Your task to perform on an android device: toggle notification dots Image 0: 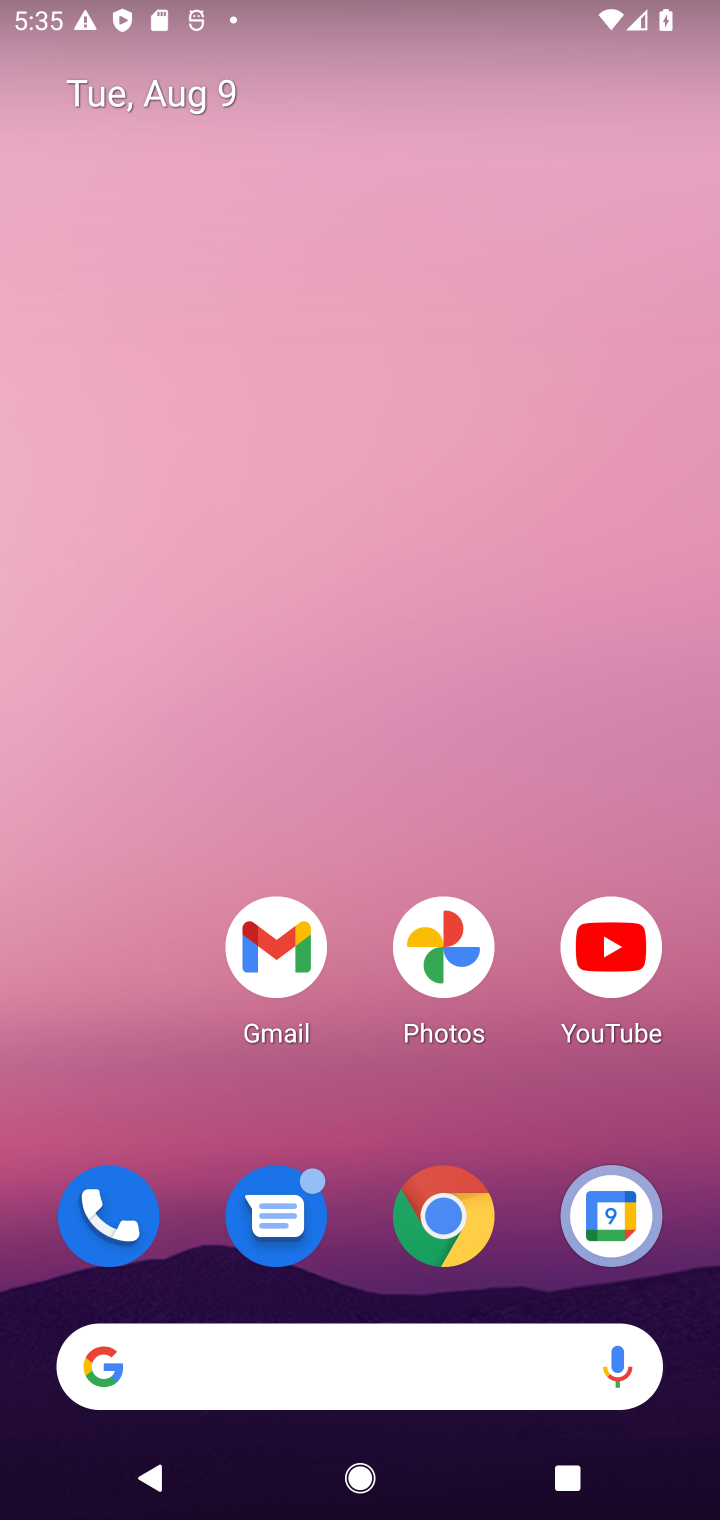
Step 0: press home button
Your task to perform on an android device: toggle notification dots Image 1: 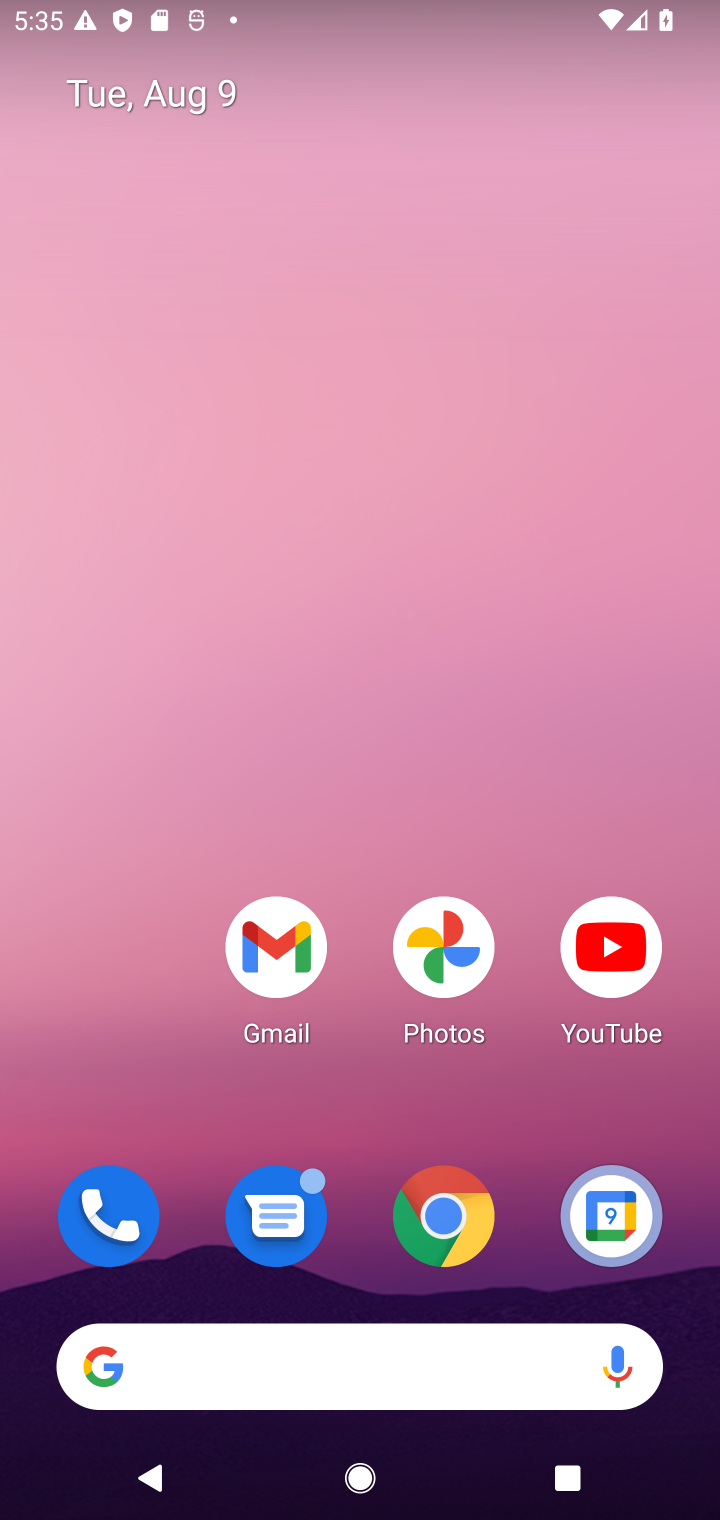
Step 1: drag from (343, 8) to (400, 939)
Your task to perform on an android device: toggle notification dots Image 2: 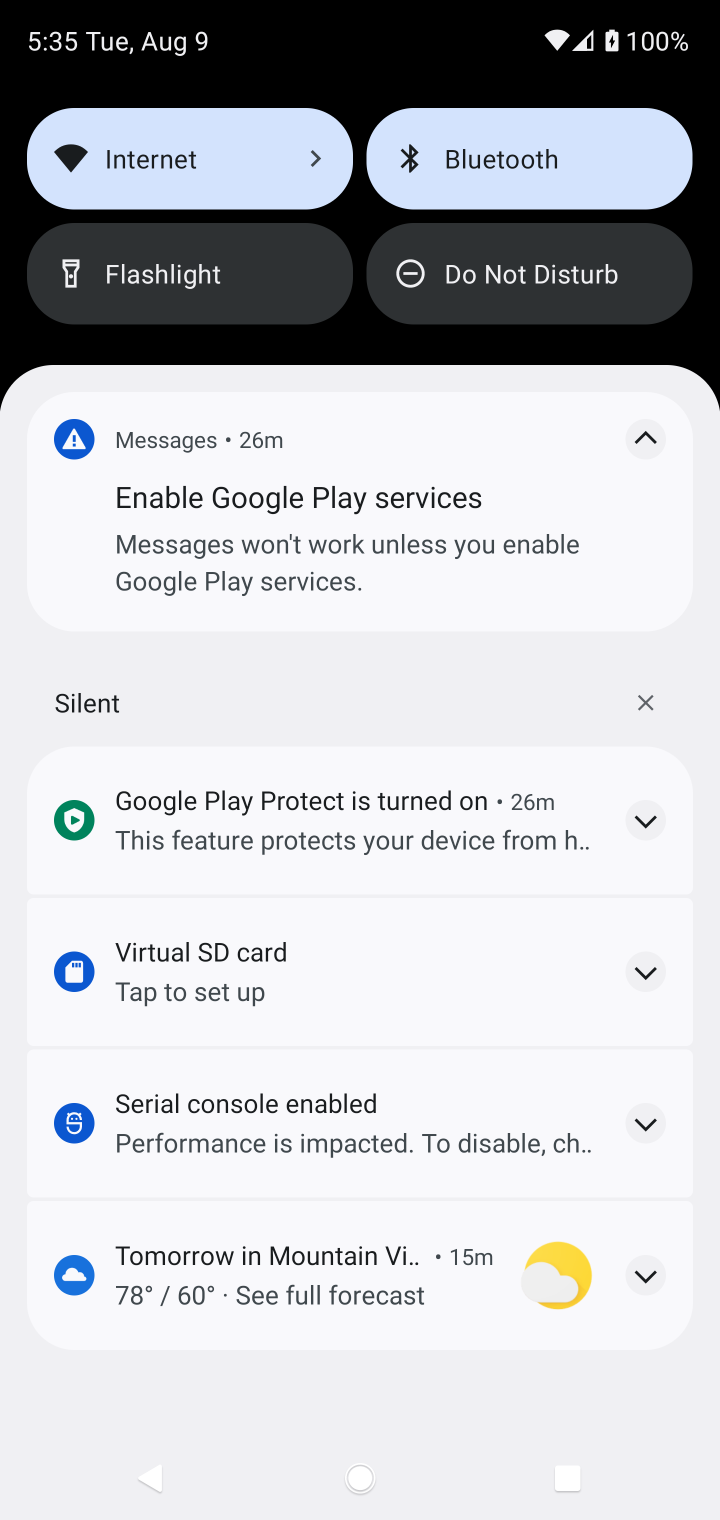
Step 2: drag from (276, 1442) to (276, 556)
Your task to perform on an android device: toggle notification dots Image 3: 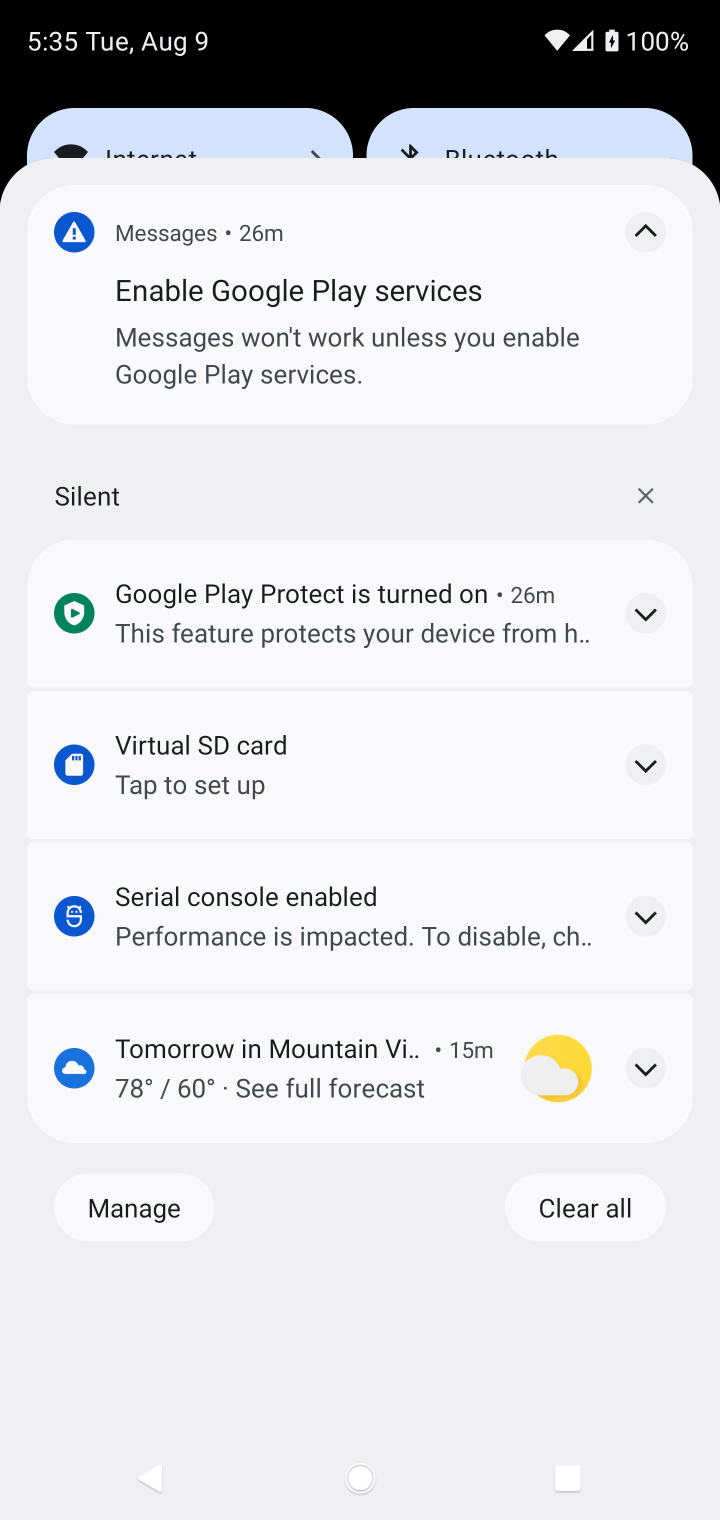
Step 3: drag from (234, 1257) to (157, 455)
Your task to perform on an android device: toggle notification dots Image 4: 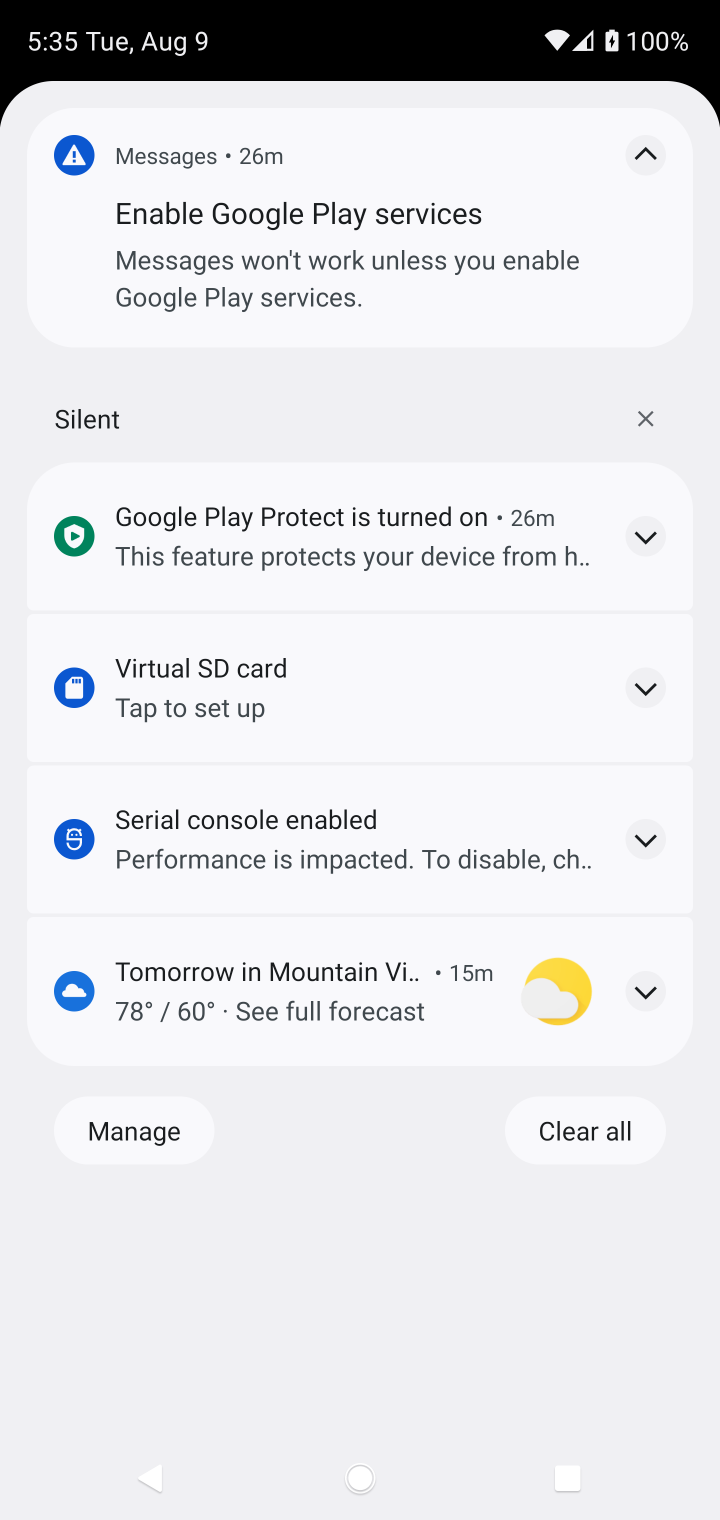
Step 4: drag from (138, 1174) to (3, 191)
Your task to perform on an android device: toggle notification dots Image 5: 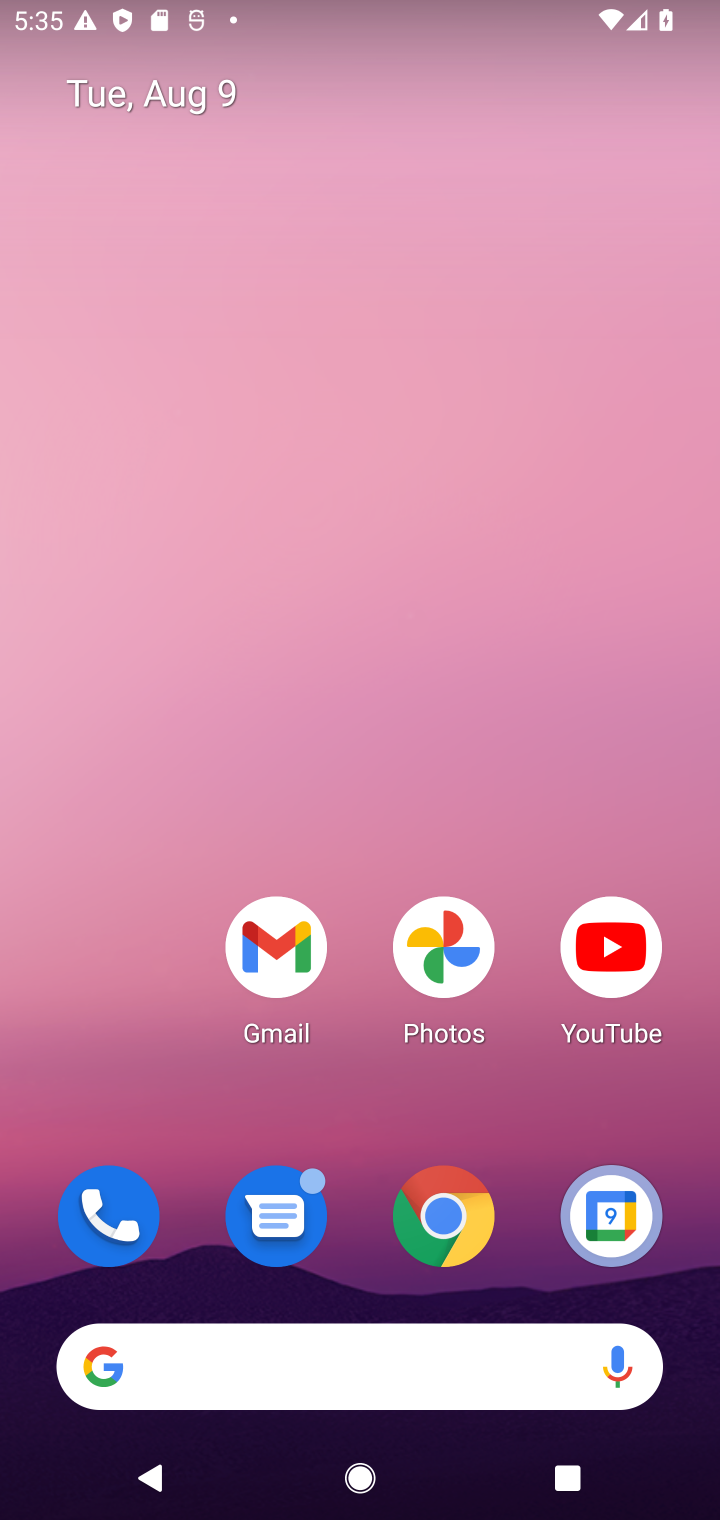
Step 5: drag from (391, 1264) to (290, 442)
Your task to perform on an android device: toggle notification dots Image 6: 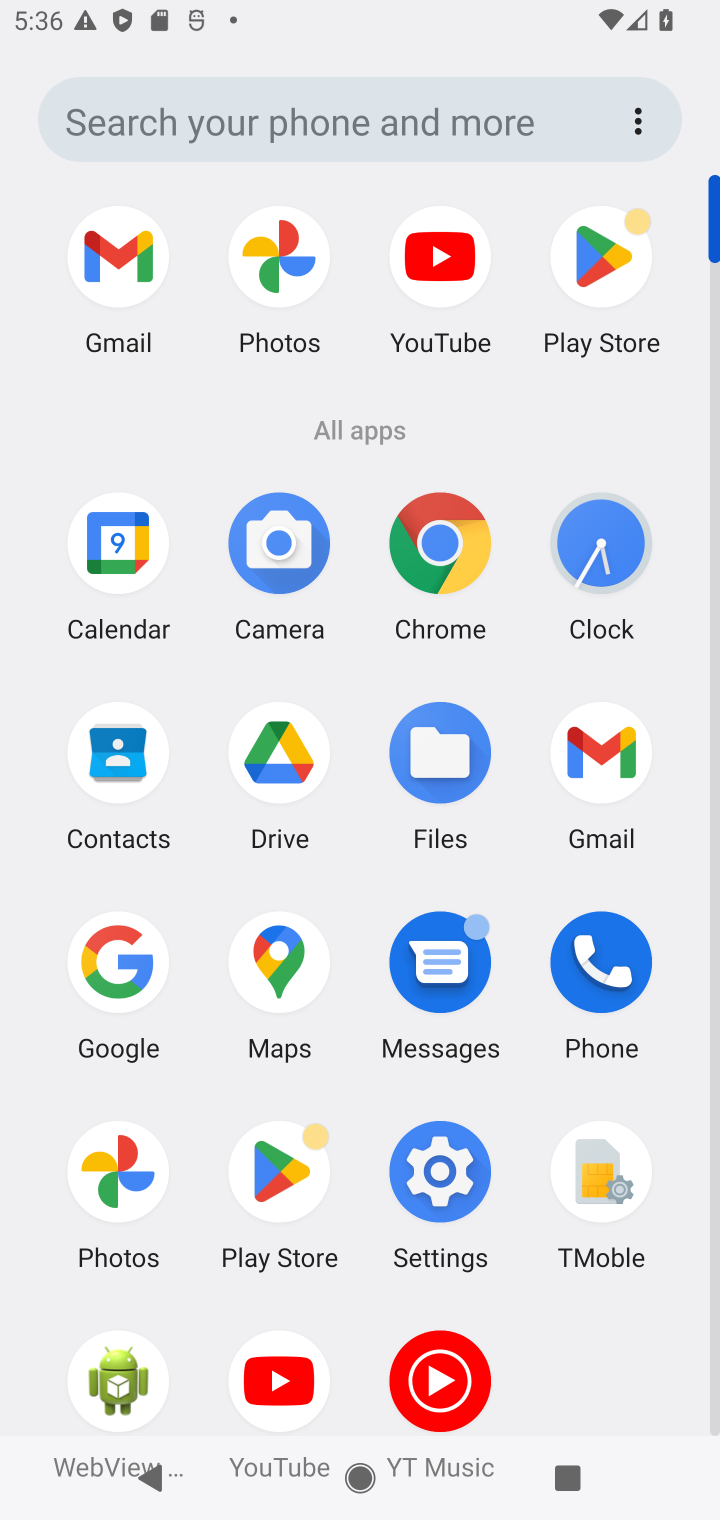
Step 6: click (425, 1181)
Your task to perform on an android device: toggle notification dots Image 7: 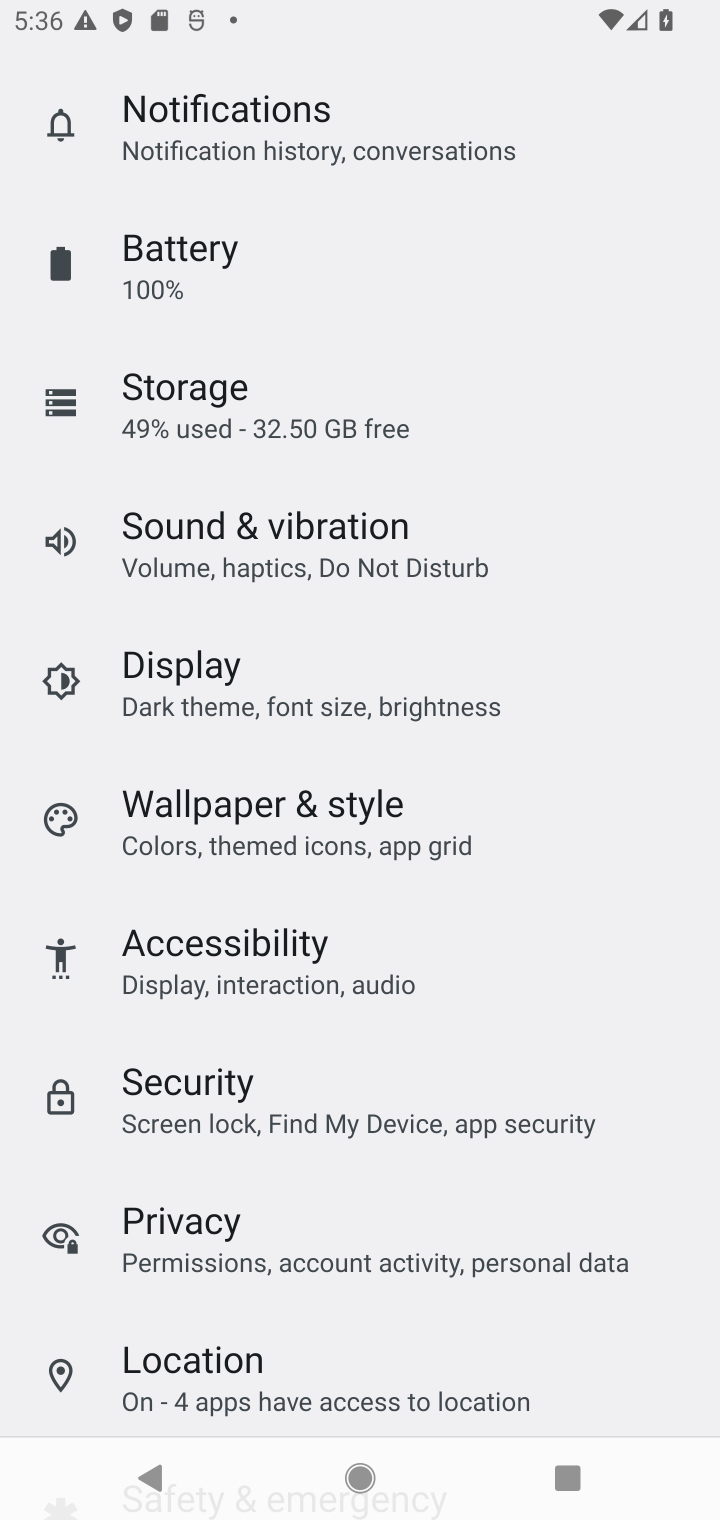
Step 7: drag from (194, 1376) to (144, 491)
Your task to perform on an android device: toggle notification dots Image 8: 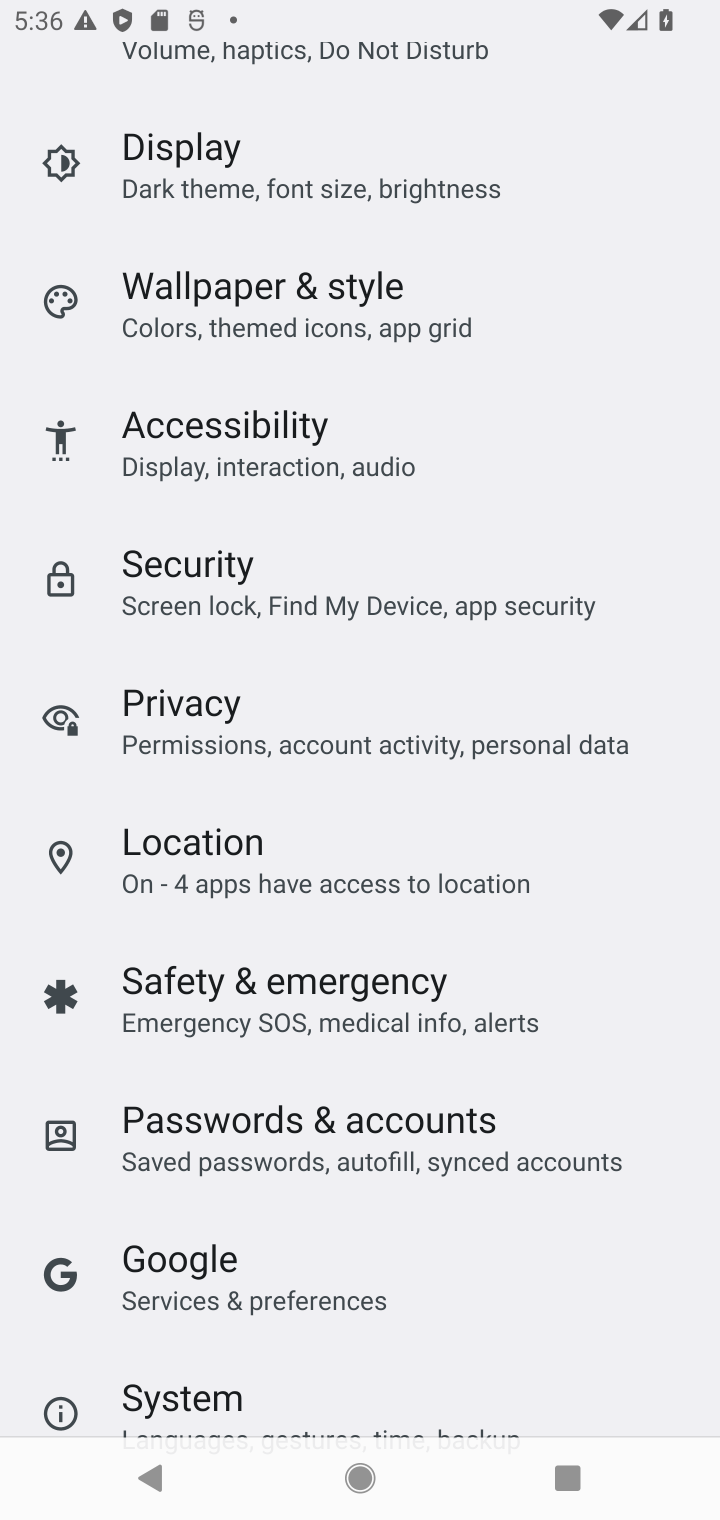
Step 8: drag from (227, 117) to (356, 1010)
Your task to perform on an android device: toggle notification dots Image 9: 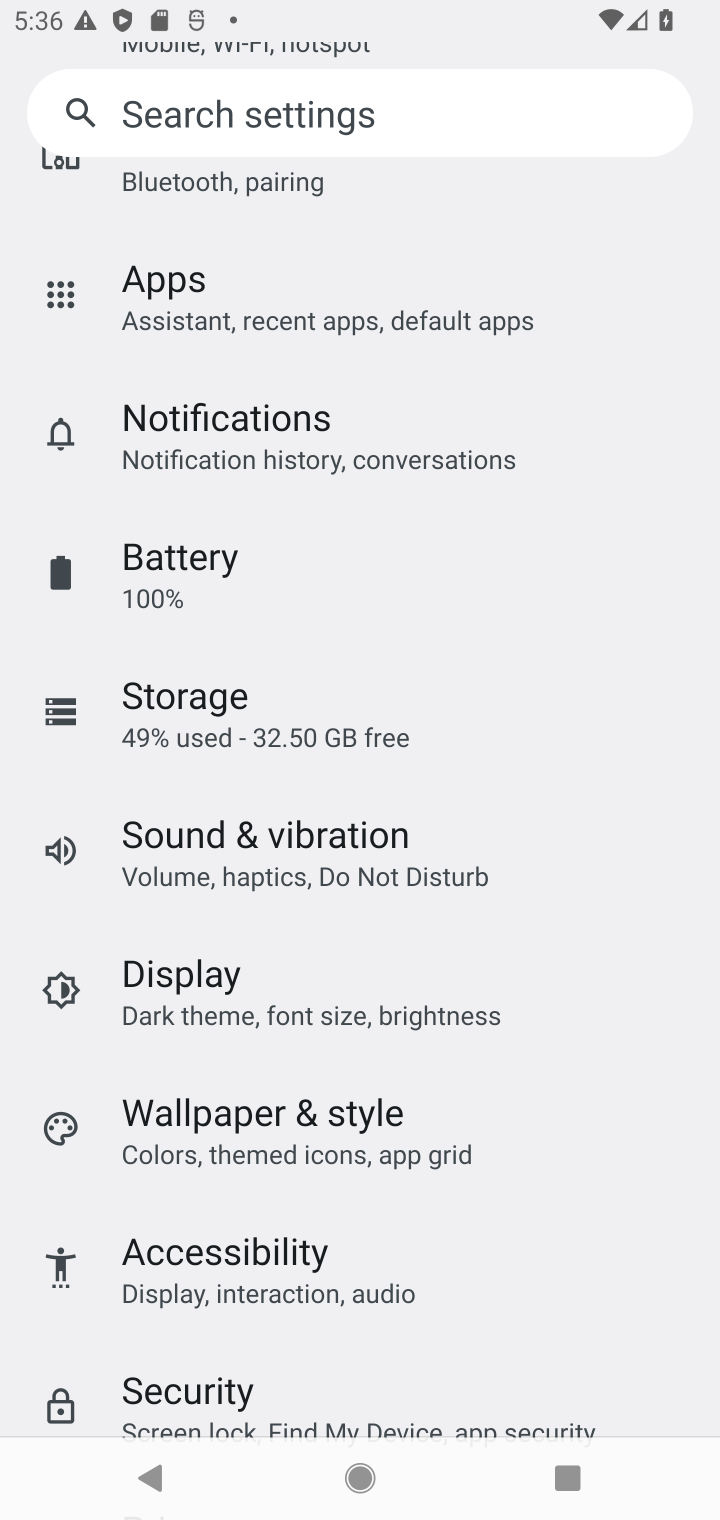
Step 9: drag from (194, 227) to (301, 850)
Your task to perform on an android device: toggle notification dots Image 10: 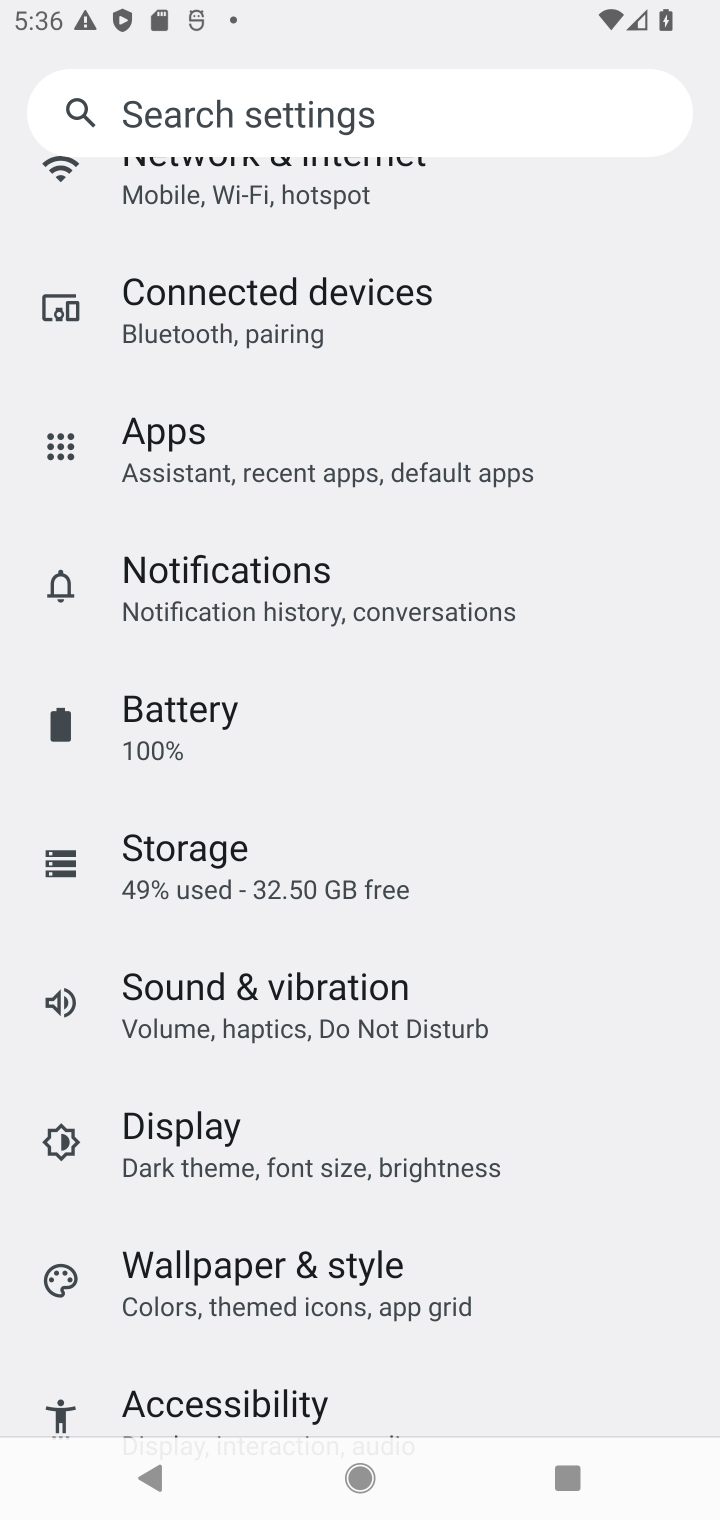
Step 10: click (216, 606)
Your task to perform on an android device: toggle notification dots Image 11: 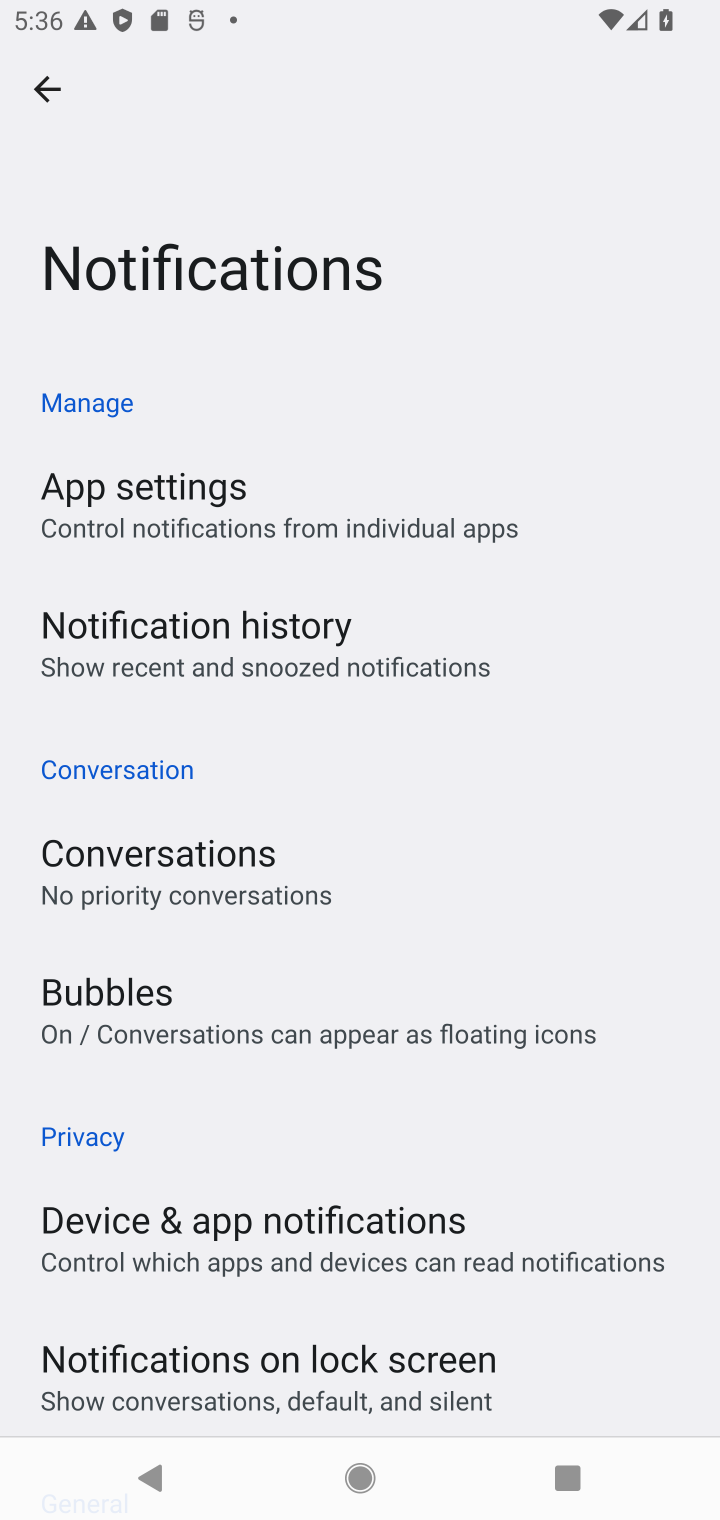
Step 11: drag from (126, 1368) to (179, 551)
Your task to perform on an android device: toggle notification dots Image 12: 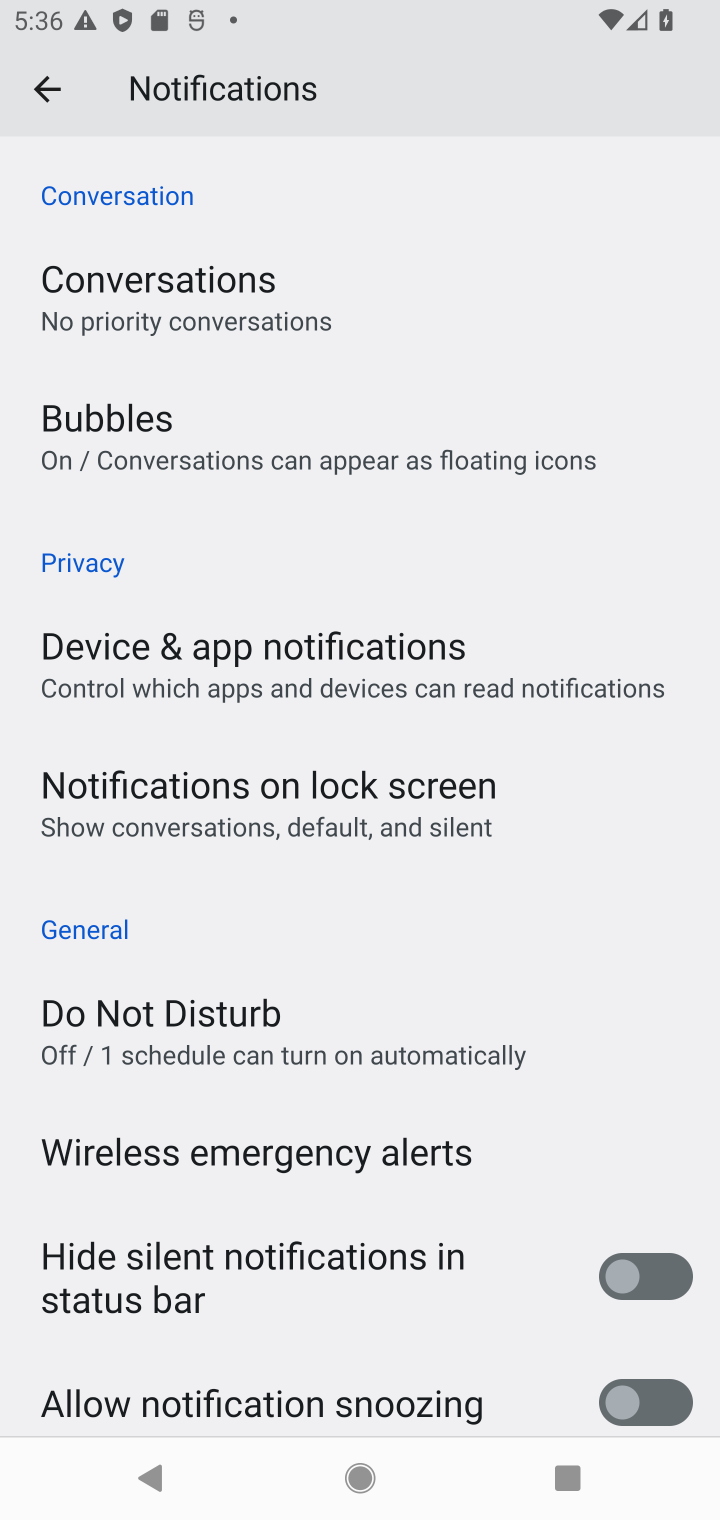
Step 12: click (236, 463)
Your task to perform on an android device: toggle notification dots Image 13: 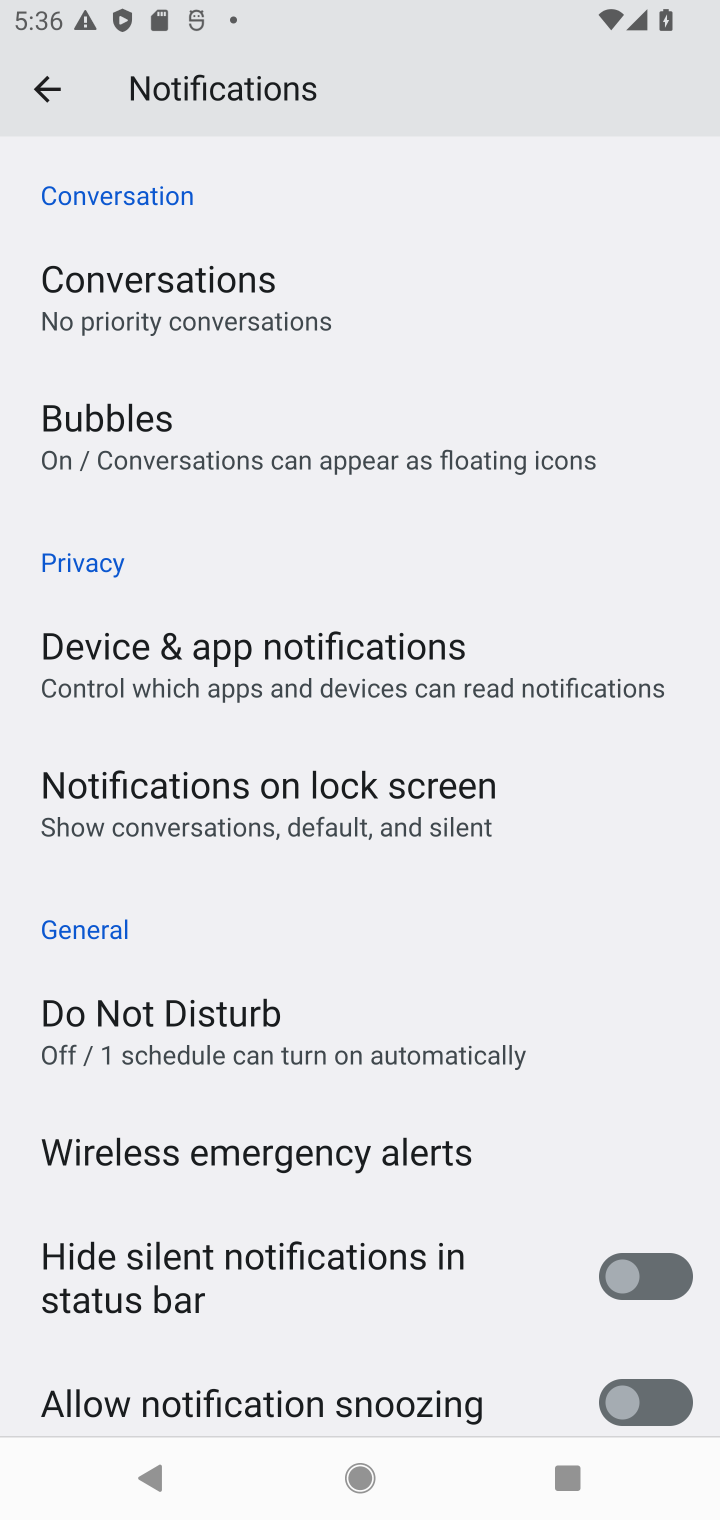
Step 13: drag from (459, 1422) to (459, 363)
Your task to perform on an android device: toggle notification dots Image 14: 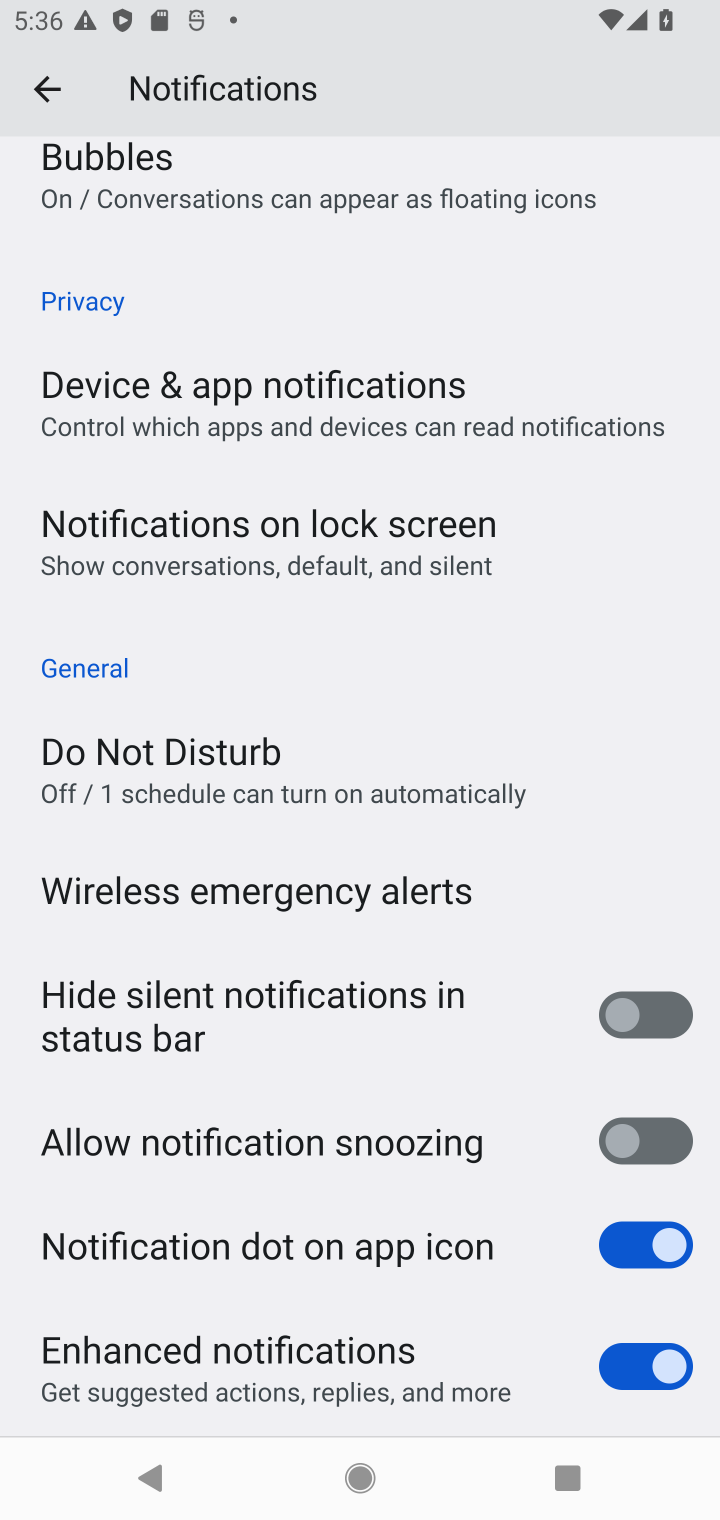
Step 14: click (637, 1250)
Your task to perform on an android device: toggle notification dots Image 15: 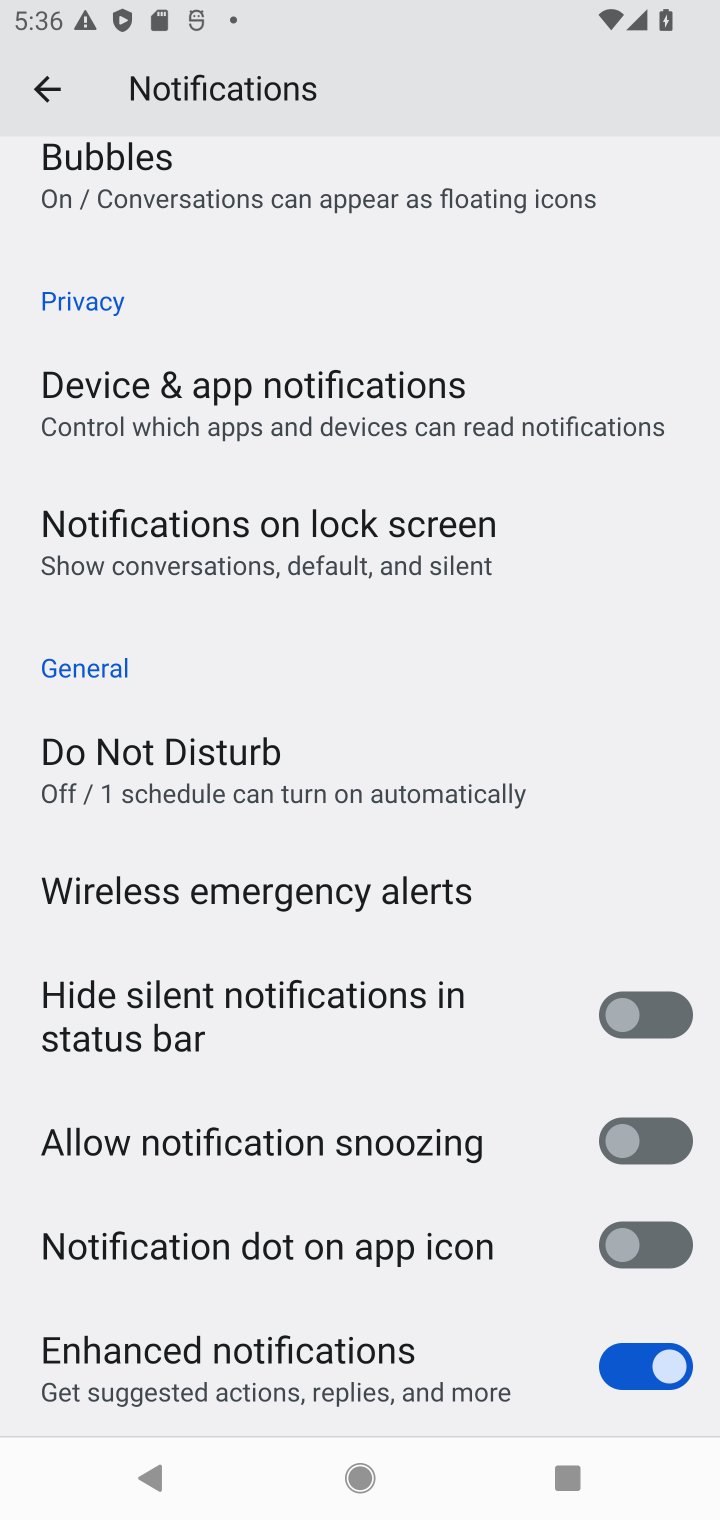
Step 15: task complete